Your task to perform on an android device: find photos in the google photos app Image 0: 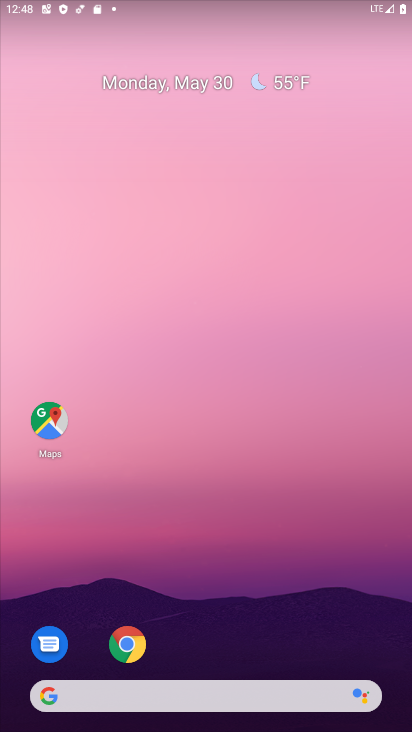
Step 0: click (134, 647)
Your task to perform on an android device: find photos in the google photos app Image 1: 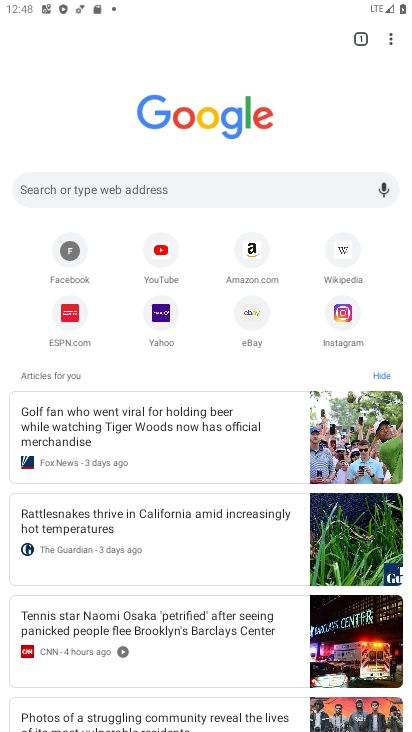
Step 1: task complete